Your task to perform on an android device: Open the map Image 0: 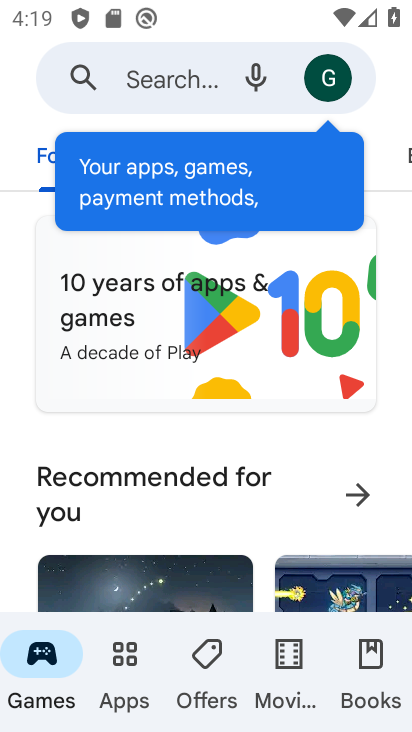
Step 0: press back button
Your task to perform on an android device: Open the map Image 1: 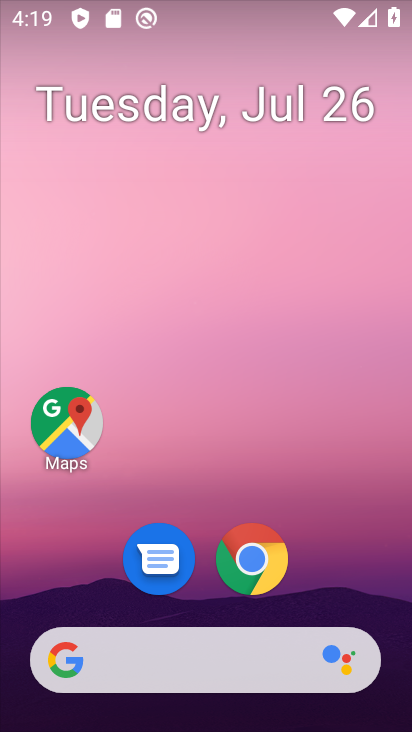
Step 1: click (70, 429)
Your task to perform on an android device: Open the map Image 2: 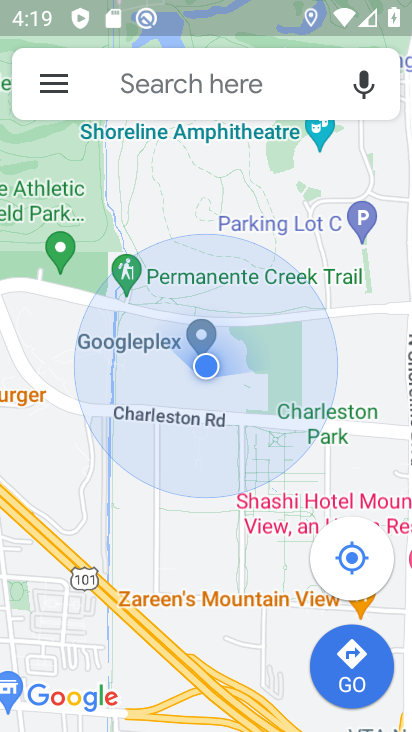
Step 2: task complete